Your task to perform on an android device: Open calendar and show me the second week of next month Image 0: 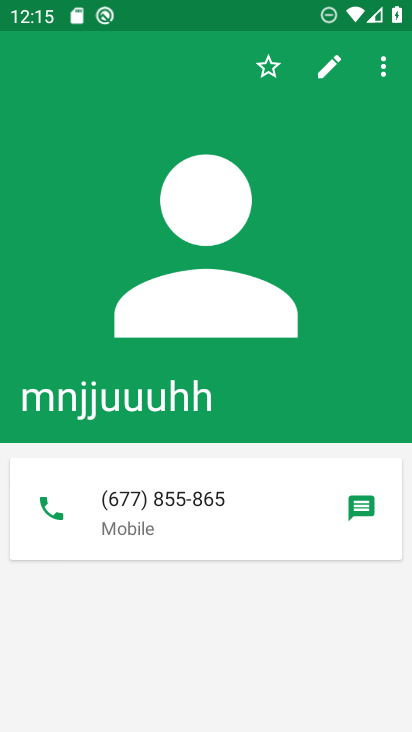
Step 0: press home button
Your task to perform on an android device: Open calendar and show me the second week of next month Image 1: 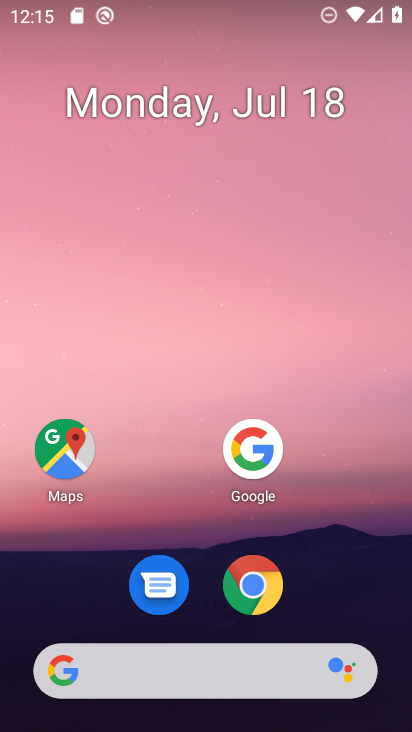
Step 1: drag from (242, 661) to (323, 185)
Your task to perform on an android device: Open calendar and show me the second week of next month Image 2: 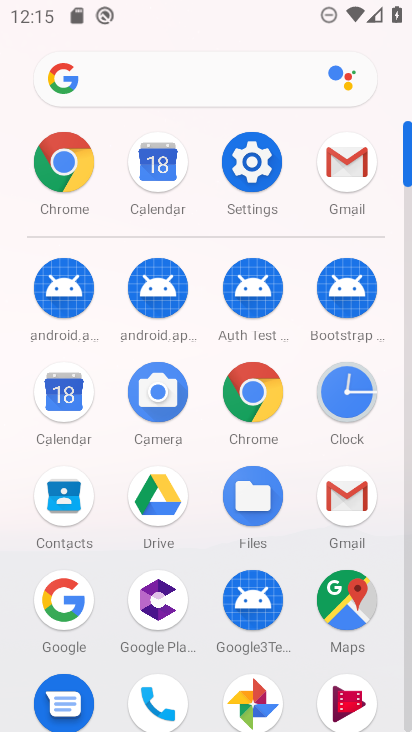
Step 2: click (63, 395)
Your task to perform on an android device: Open calendar and show me the second week of next month Image 3: 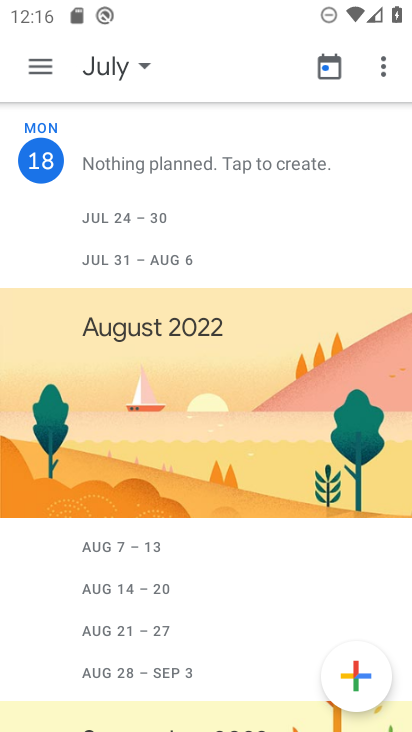
Step 3: click (108, 70)
Your task to perform on an android device: Open calendar and show me the second week of next month Image 4: 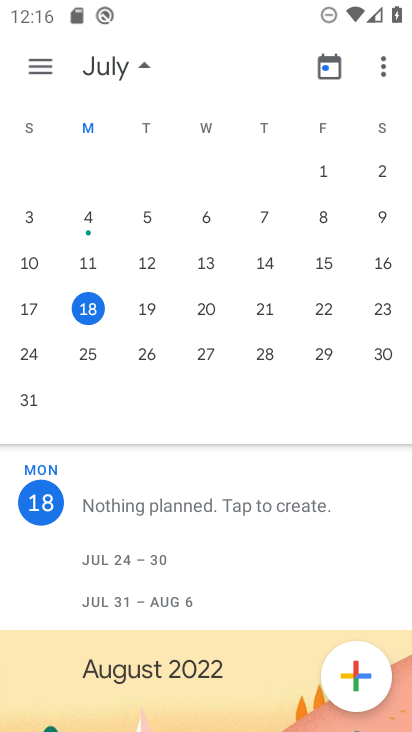
Step 4: drag from (297, 322) to (14, 378)
Your task to perform on an android device: Open calendar and show me the second week of next month Image 5: 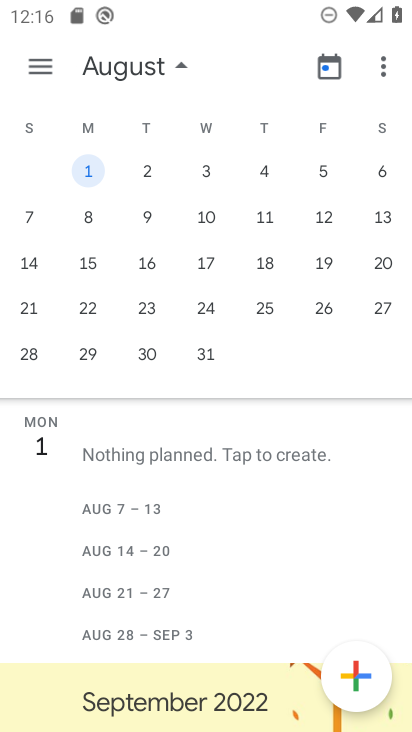
Step 5: click (38, 204)
Your task to perform on an android device: Open calendar and show me the second week of next month Image 6: 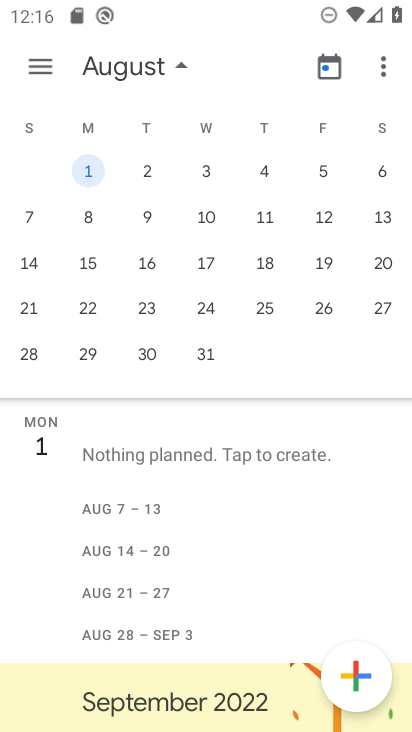
Step 6: click (35, 220)
Your task to perform on an android device: Open calendar and show me the second week of next month Image 7: 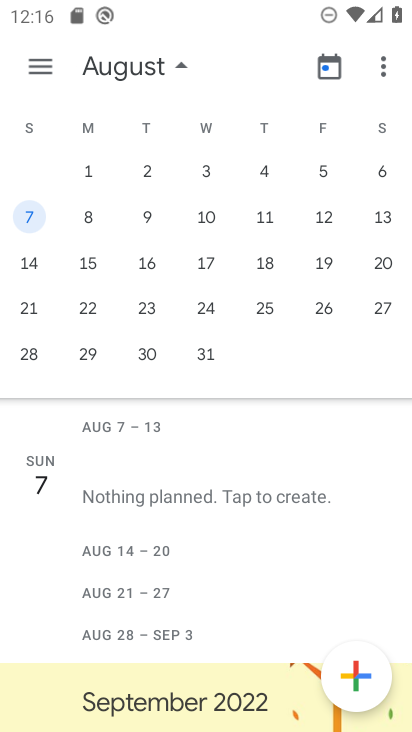
Step 7: task complete